Your task to perform on an android device: Open Yahoo.com Image 0: 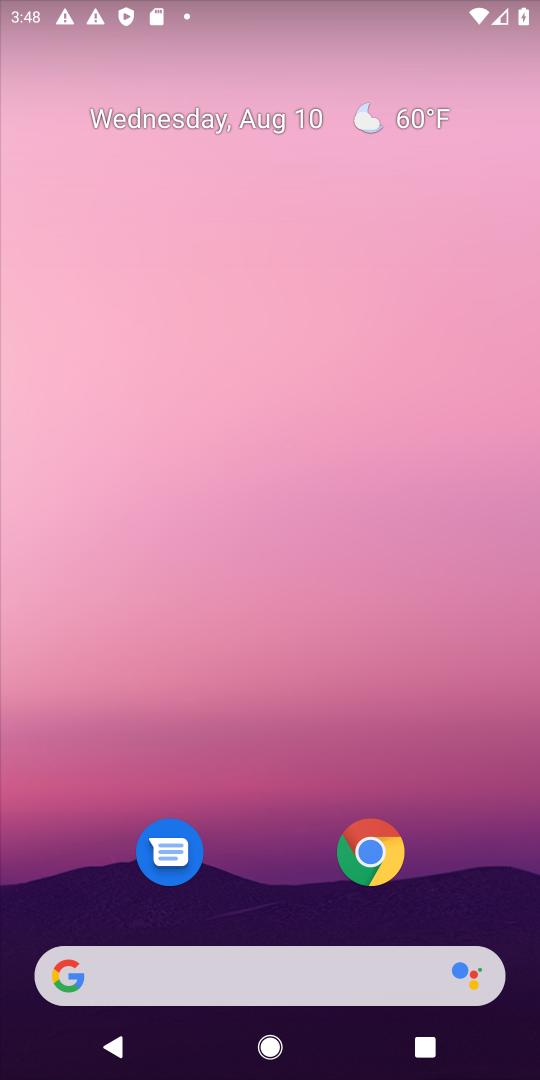
Step 0: drag from (242, 850) to (313, 209)
Your task to perform on an android device: Open Yahoo.com Image 1: 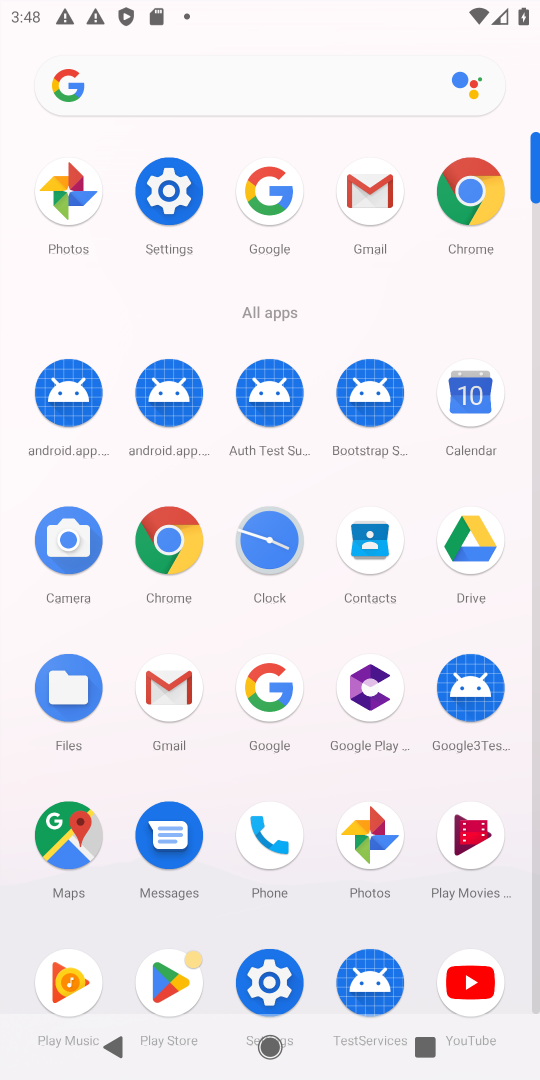
Step 1: click (155, 534)
Your task to perform on an android device: Open Yahoo.com Image 2: 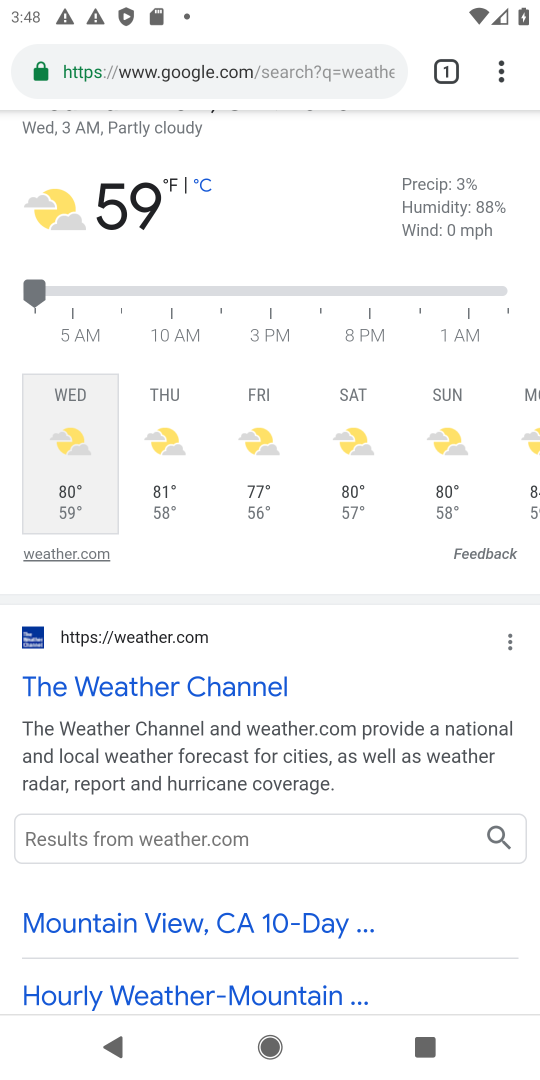
Step 2: click (290, 71)
Your task to perform on an android device: Open Yahoo.com Image 3: 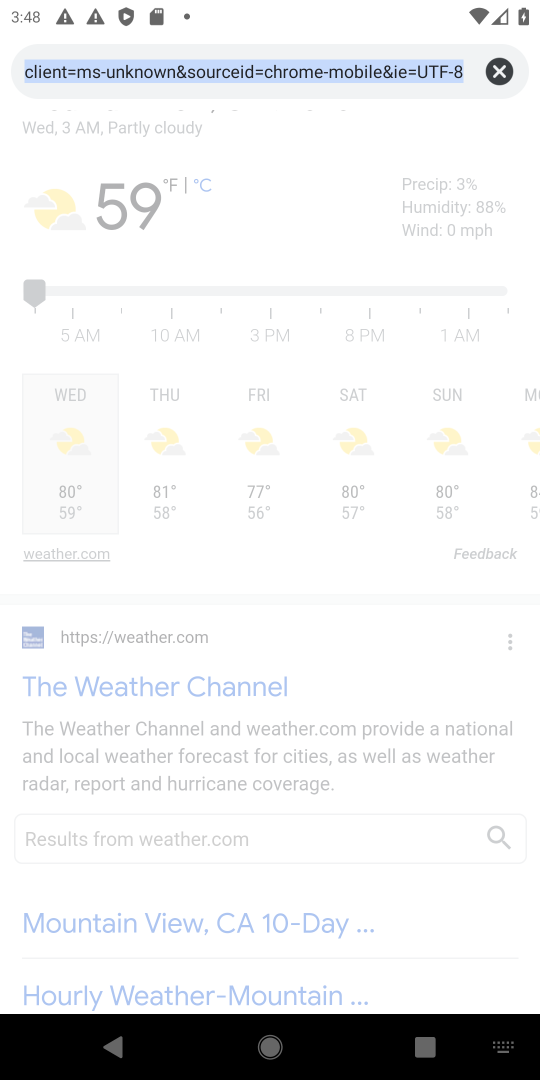
Step 3: click (507, 62)
Your task to perform on an android device: Open Yahoo.com Image 4: 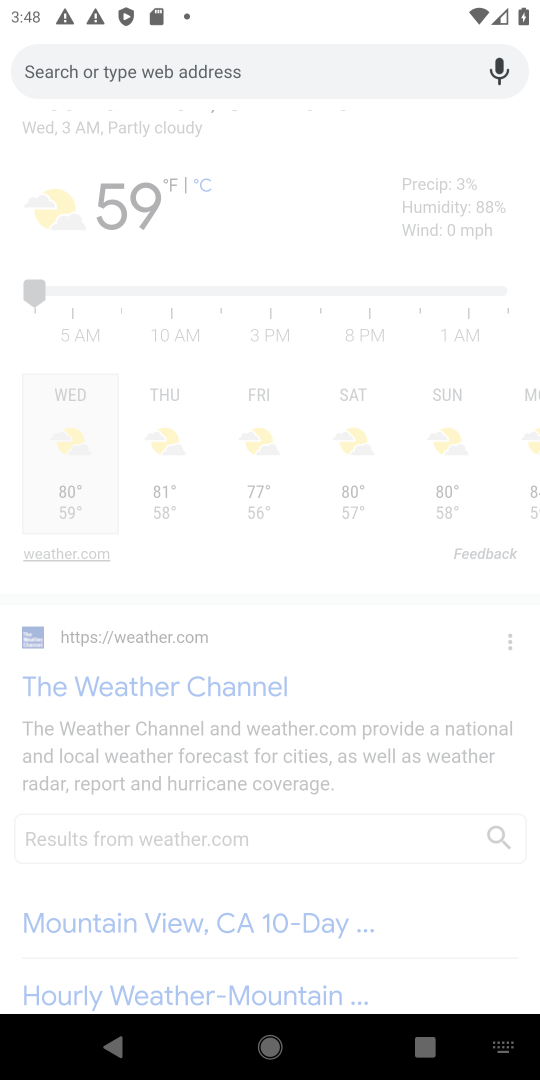
Step 4: type "yahoo.com"
Your task to perform on an android device: Open Yahoo.com Image 5: 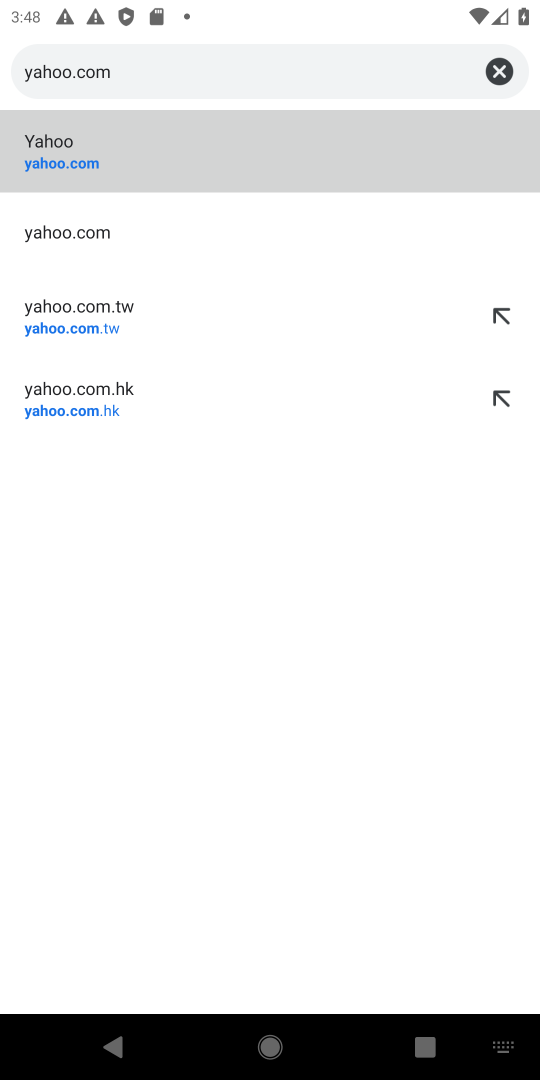
Step 5: click (102, 137)
Your task to perform on an android device: Open Yahoo.com Image 6: 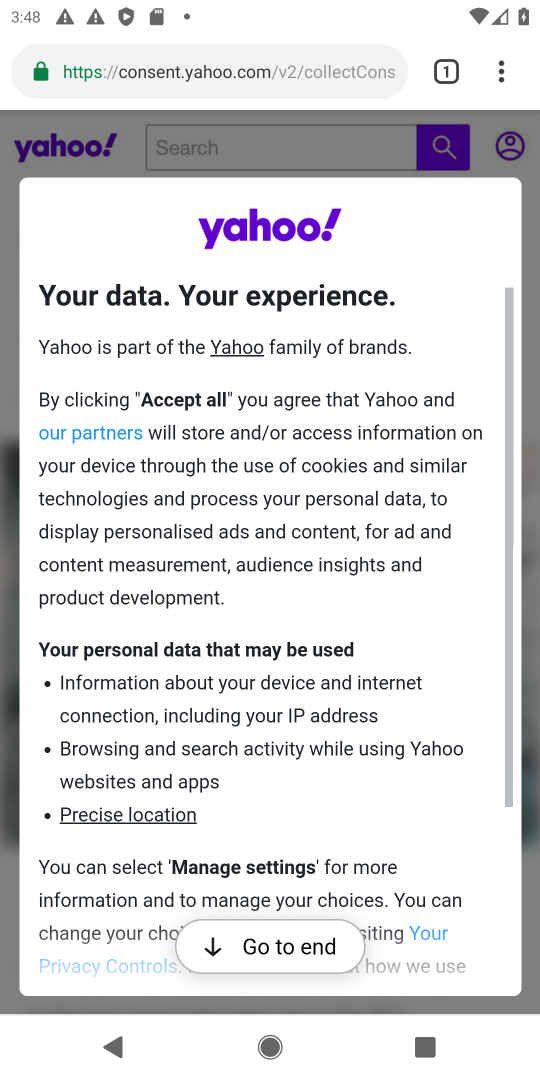
Step 6: task complete